Your task to perform on an android device: turn on data saver in the chrome app Image 0: 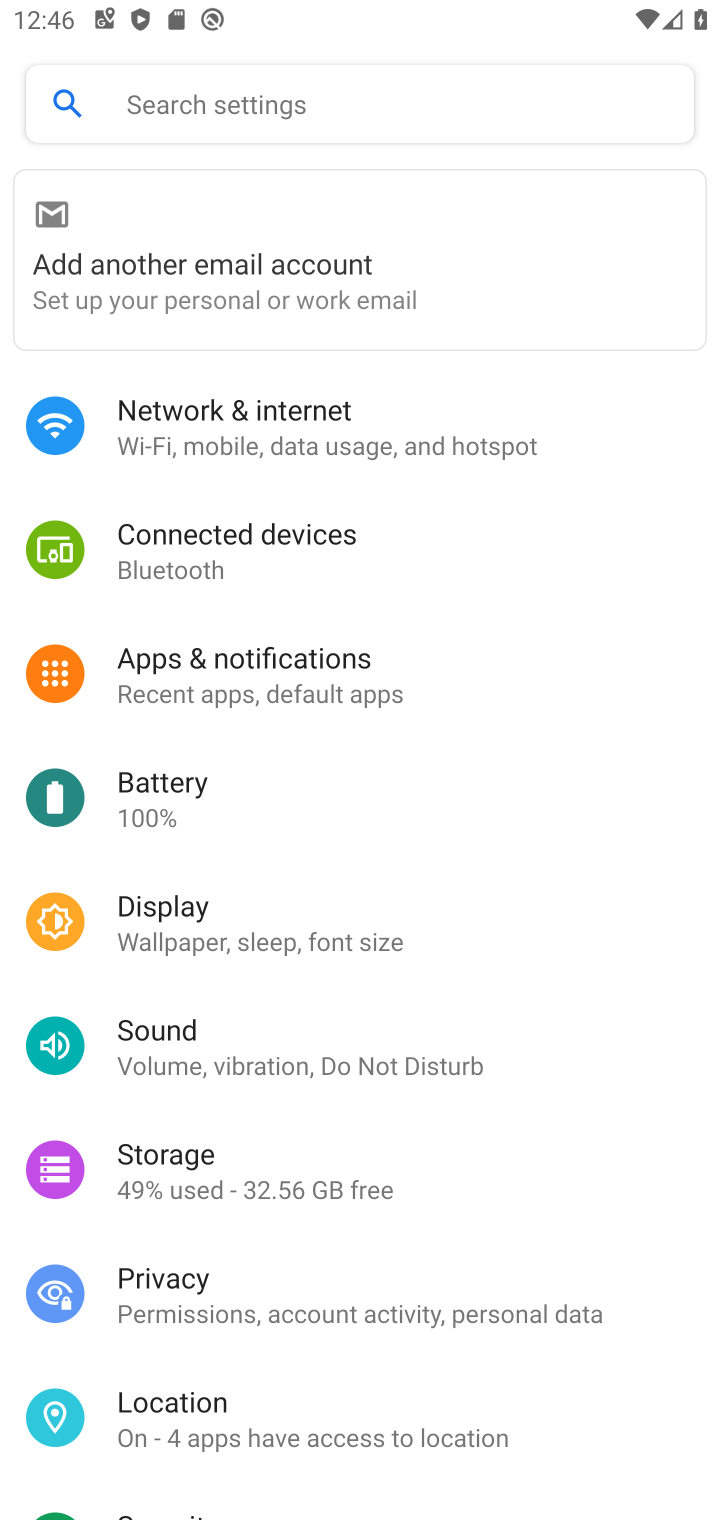
Step 0: press back button
Your task to perform on an android device: turn on data saver in the chrome app Image 1: 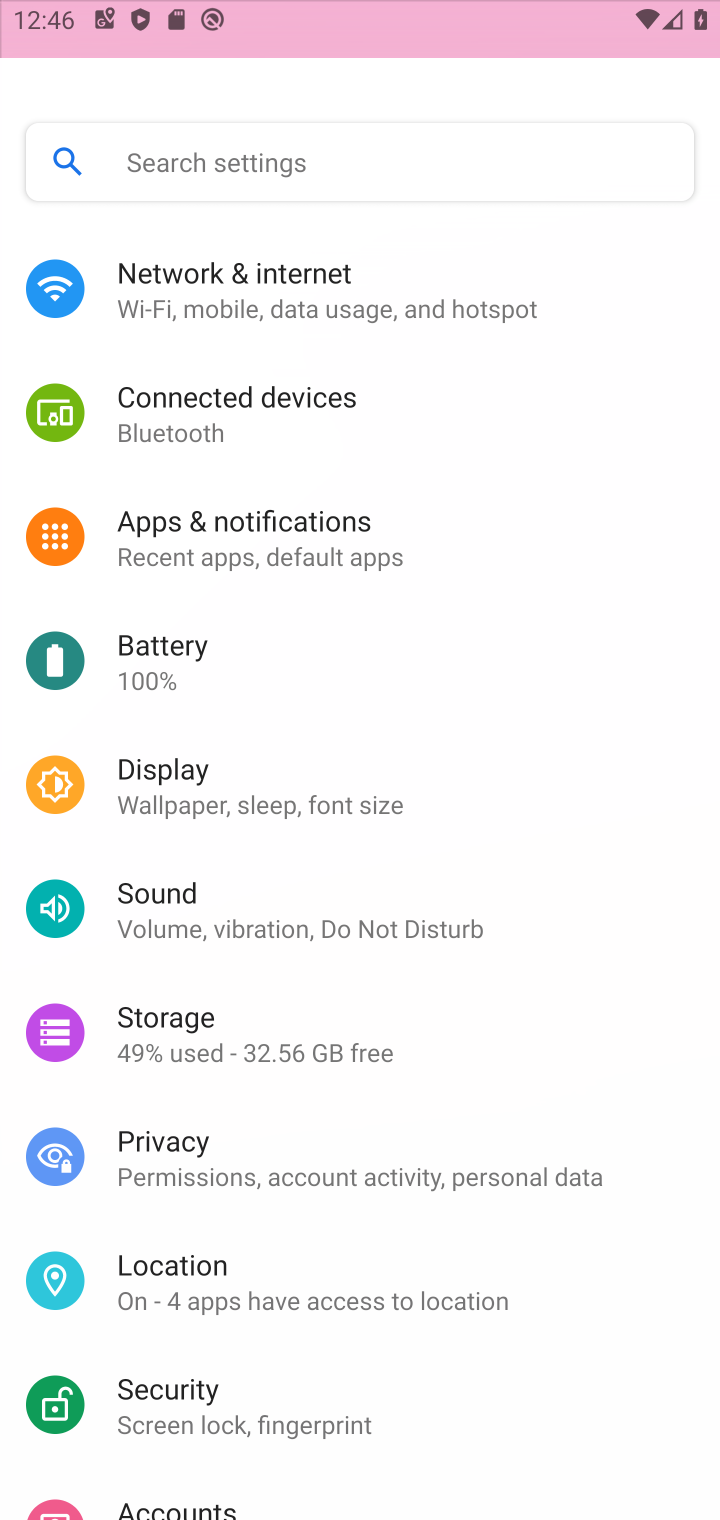
Step 1: press back button
Your task to perform on an android device: turn on data saver in the chrome app Image 2: 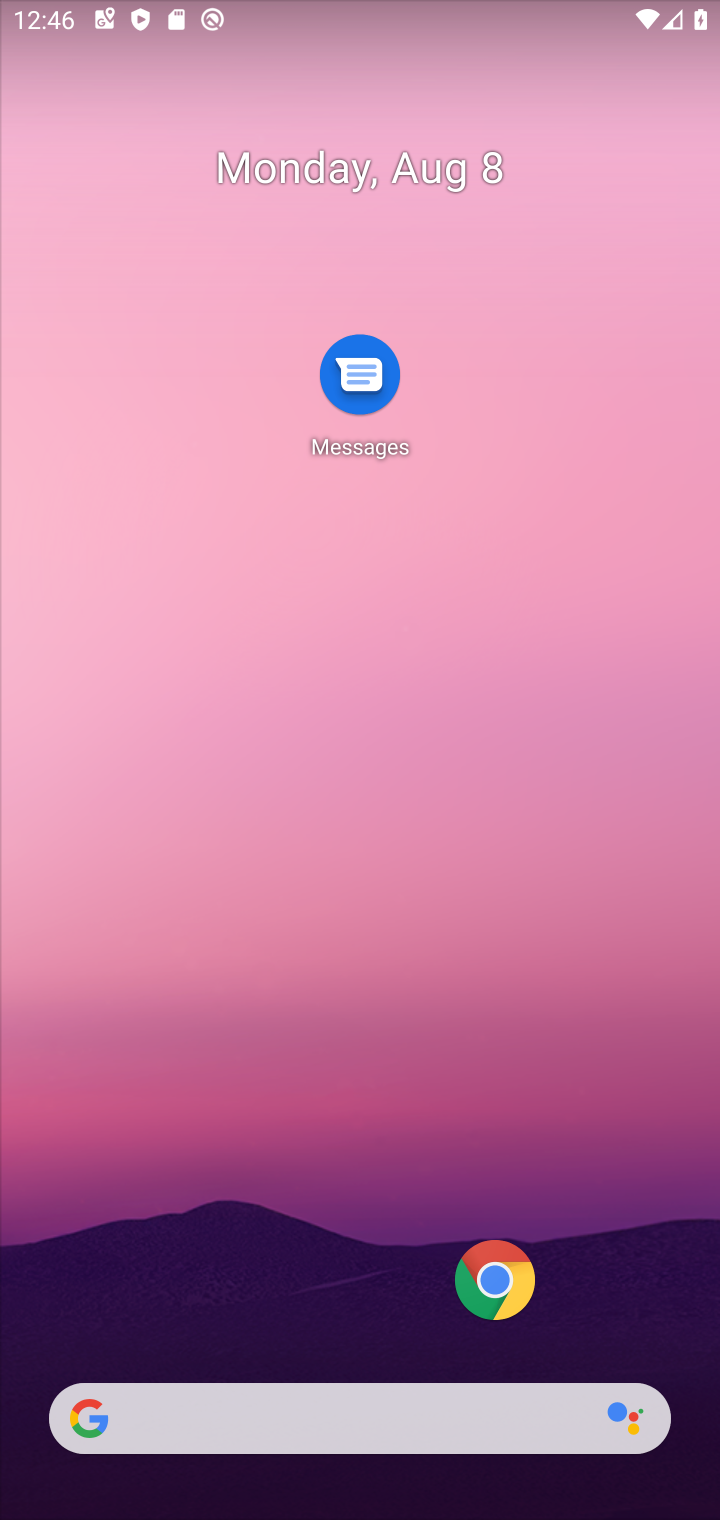
Step 2: press back button
Your task to perform on an android device: turn on data saver in the chrome app Image 3: 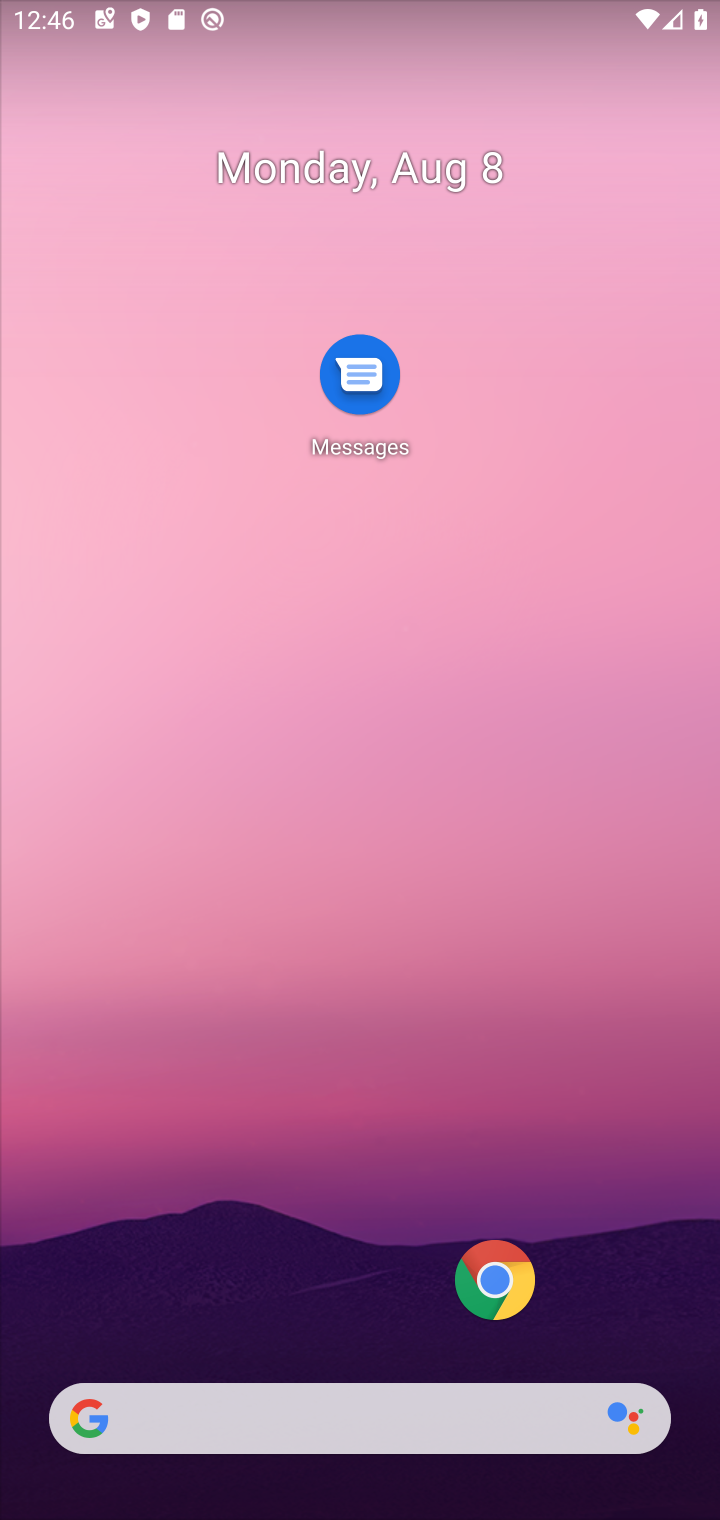
Step 3: drag from (259, 1161) to (384, 174)
Your task to perform on an android device: turn on data saver in the chrome app Image 4: 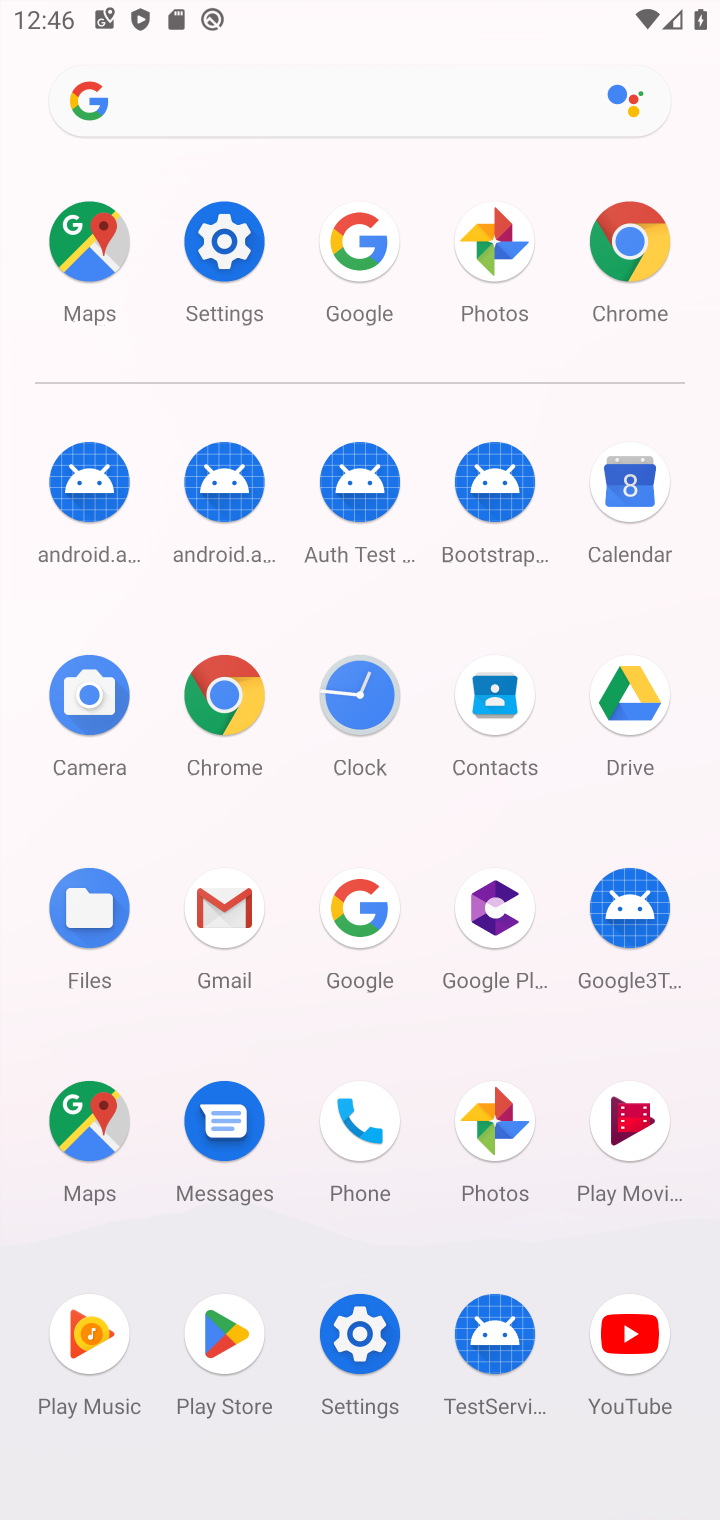
Step 4: click (611, 246)
Your task to perform on an android device: turn on data saver in the chrome app Image 5: 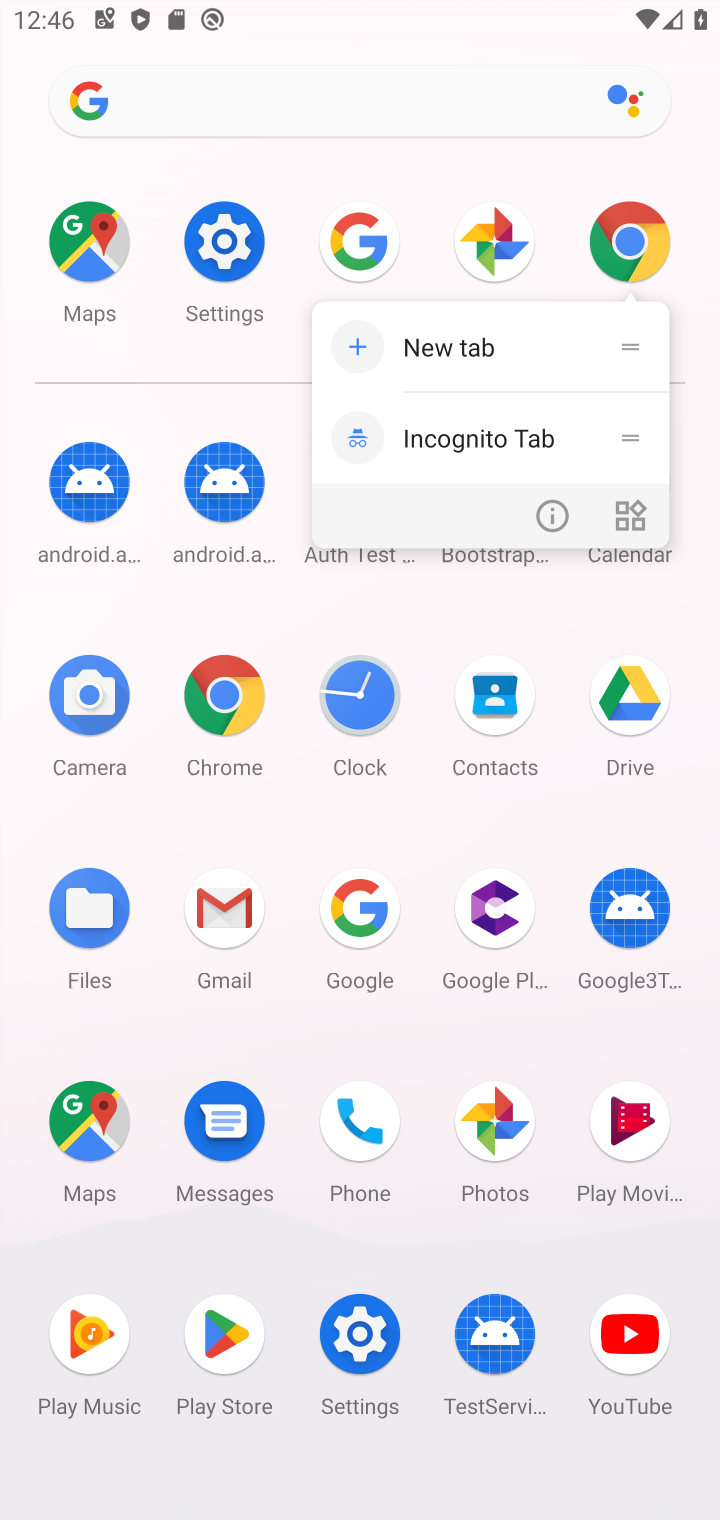
Step 5: click (622, 247)
Your task to perform on an android device: turn on data saver in the chrome app Image 6: 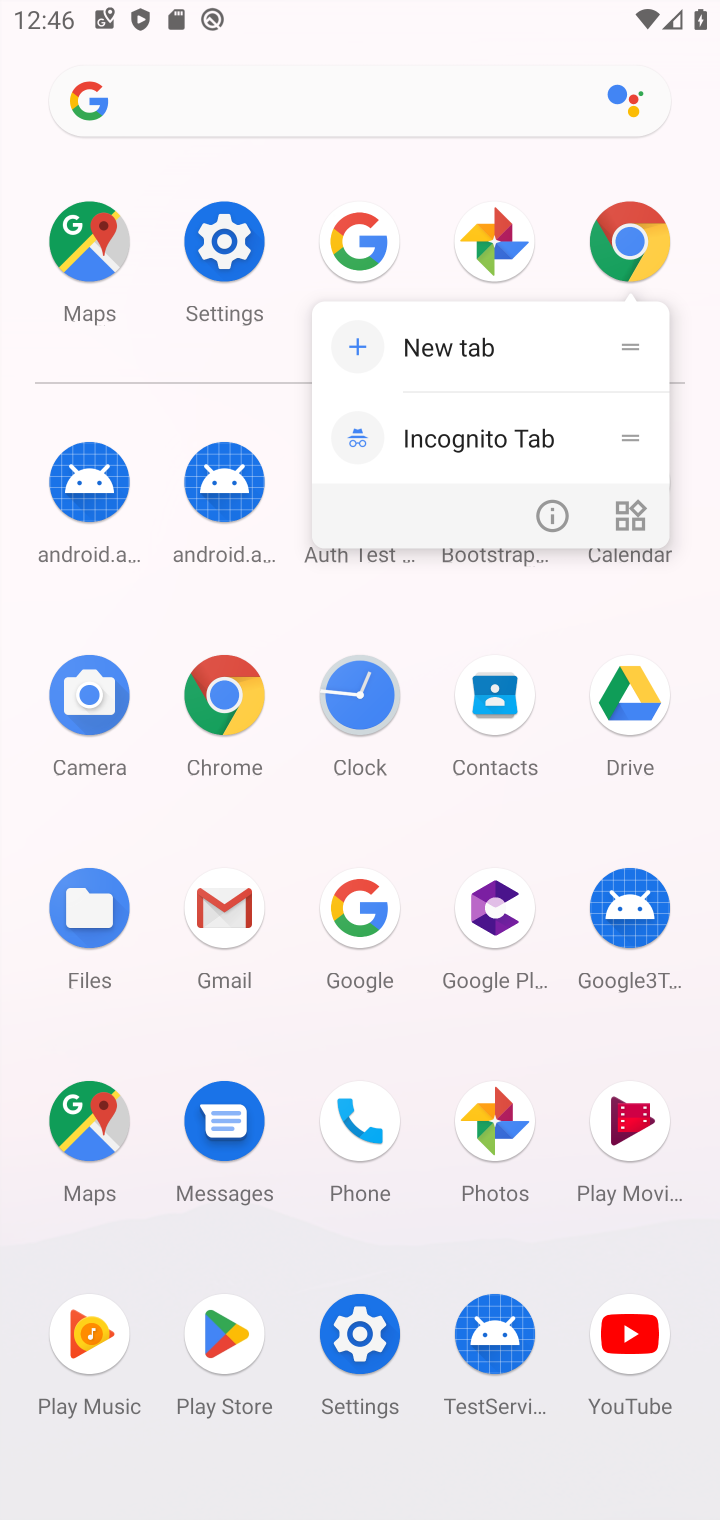
Step 6: click (622, 230)
Your task to perform on an android device: turn on data saver in the chrome app Image 7: 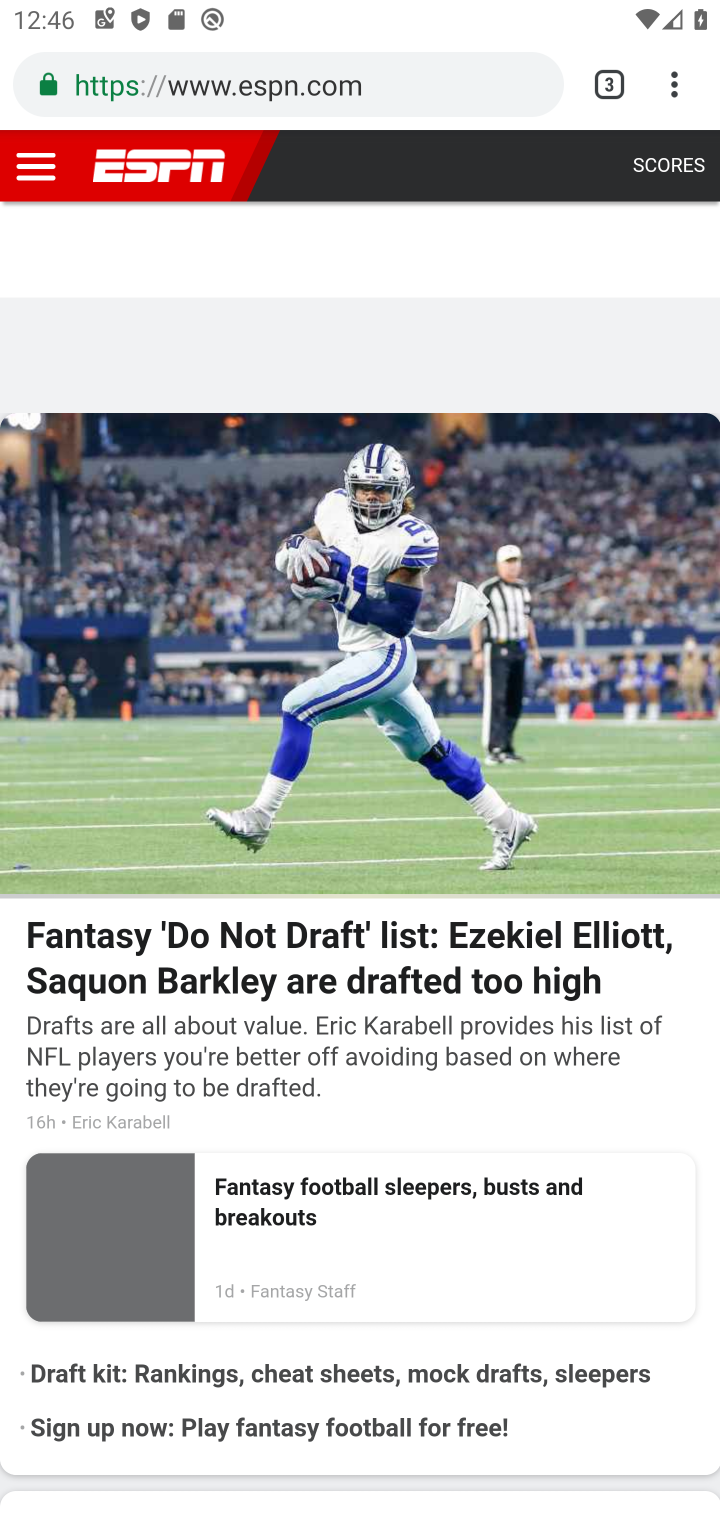
Step 7: drag from (675, 78) to (317, 1039)
Your task to perform on an android device: turn on data saver in the chrome app Image 8: 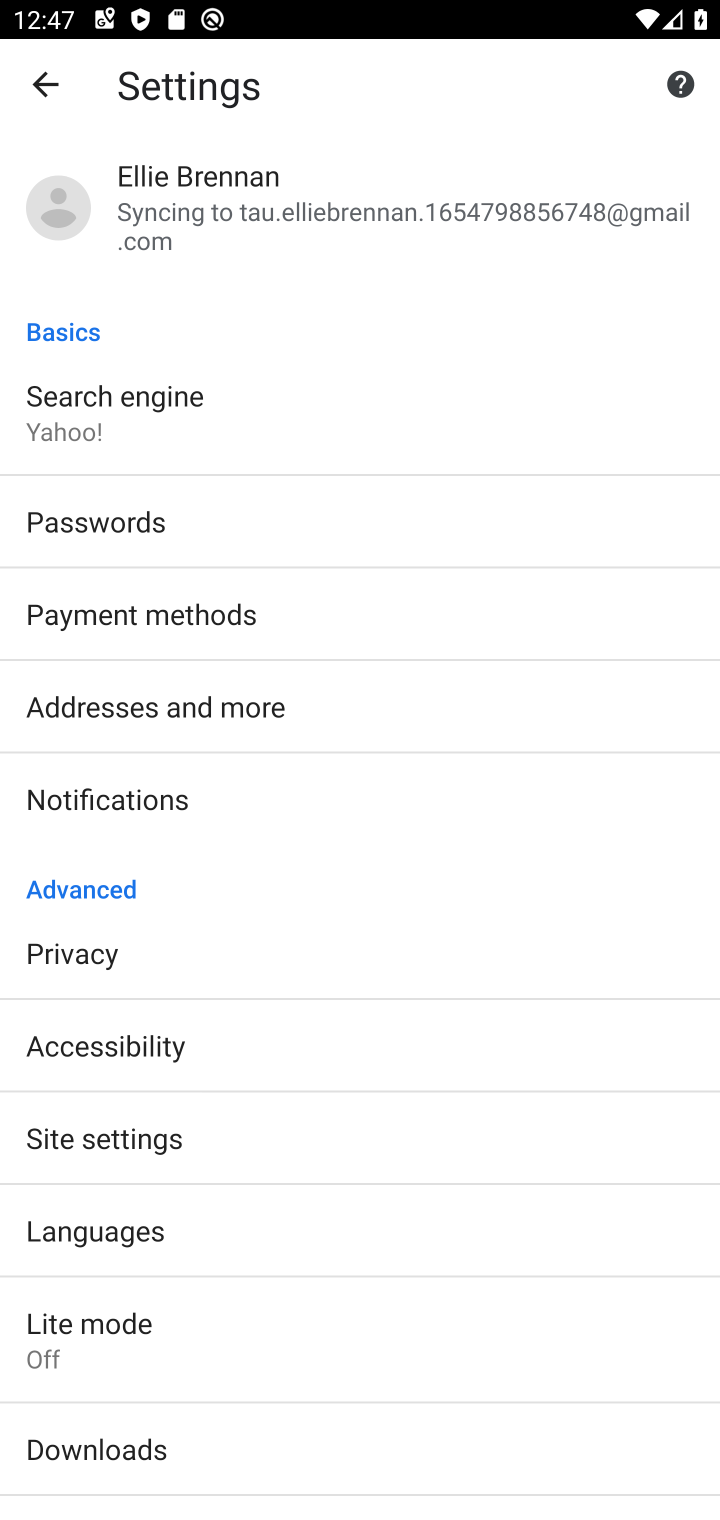
Step 8: click (107, 1342)
Your task to perform on an android device: turn on data saver in the chrome app Image 9: 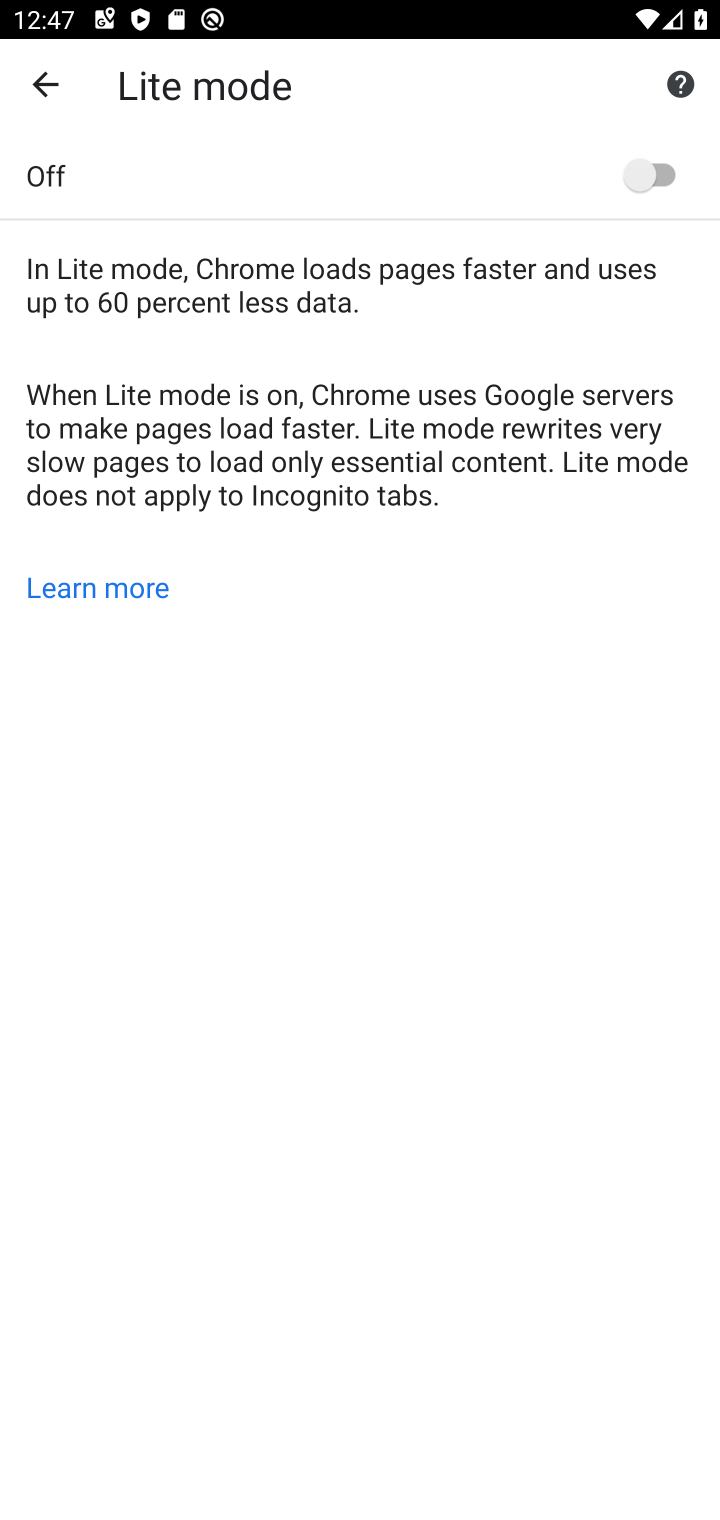
Step 9: click (648, 176)
Your task to perform on an android device: turn on data saver in the chrome app Image 10: 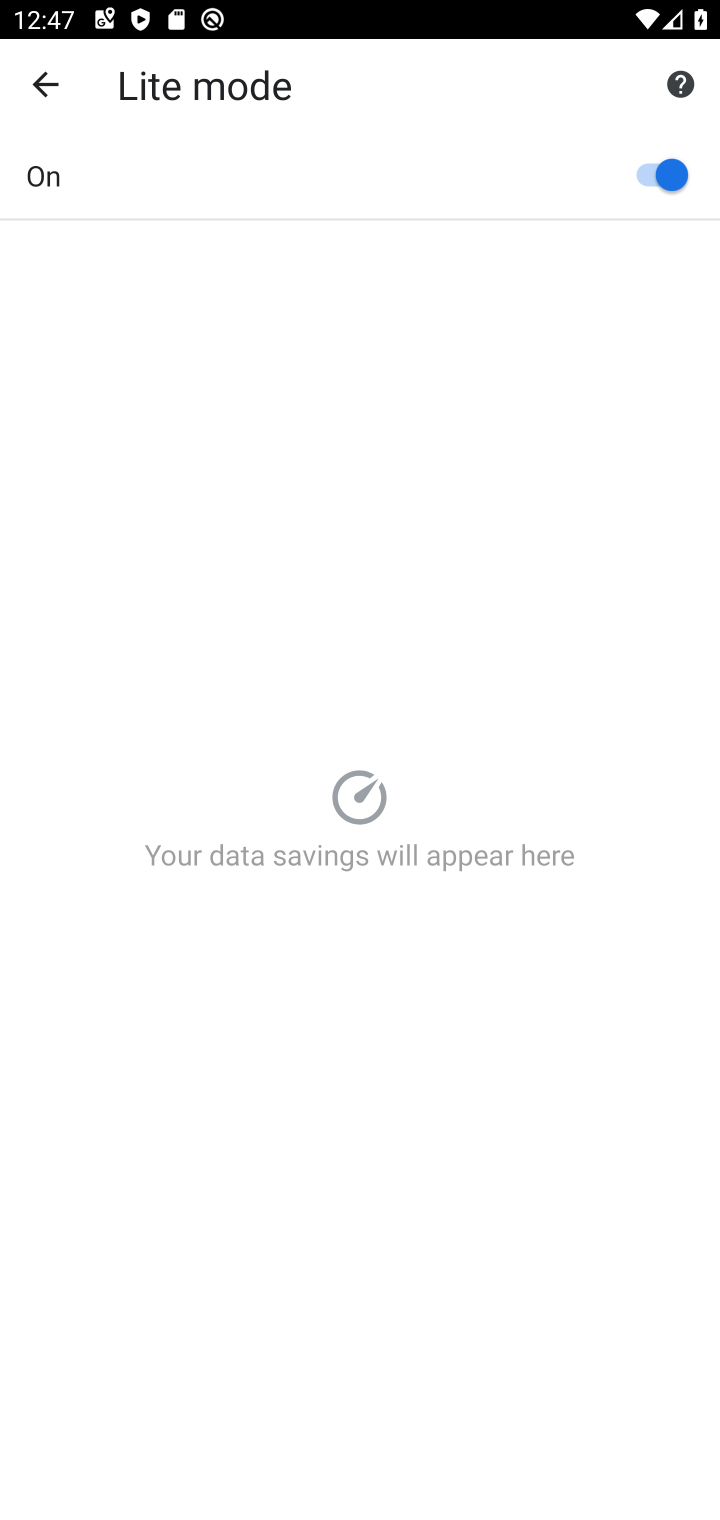
Step 10: task complete